Your task to perform on an android device: Open internet settings Image 0: 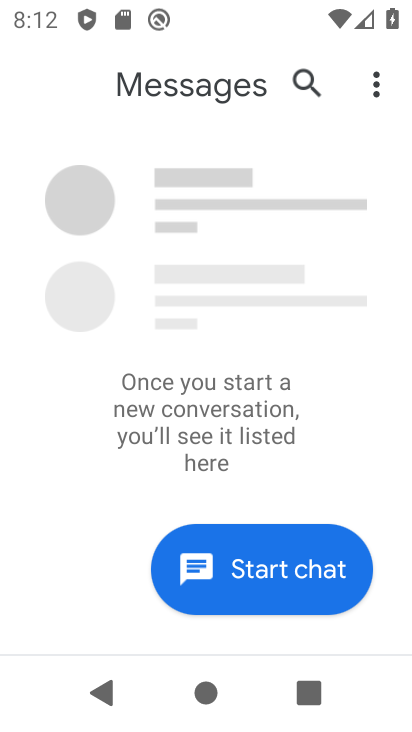
Step 0: press home button
Your task to perform on an android device: Open internet settings Image 1: 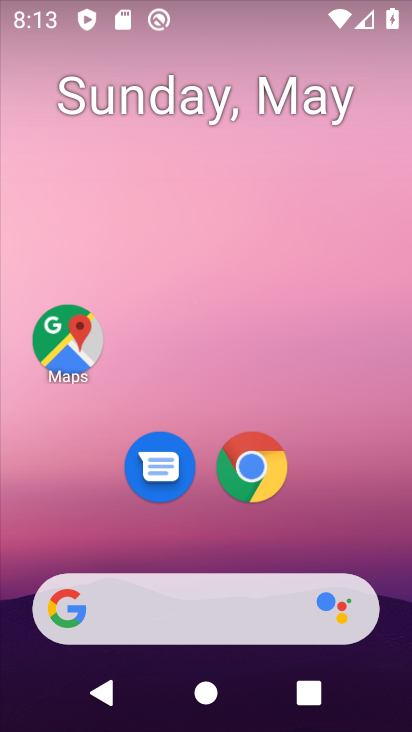
Step 1: drag from (395, 634) to (322, 99)
Your task to perform on an android device: Open internet settings Image 2: 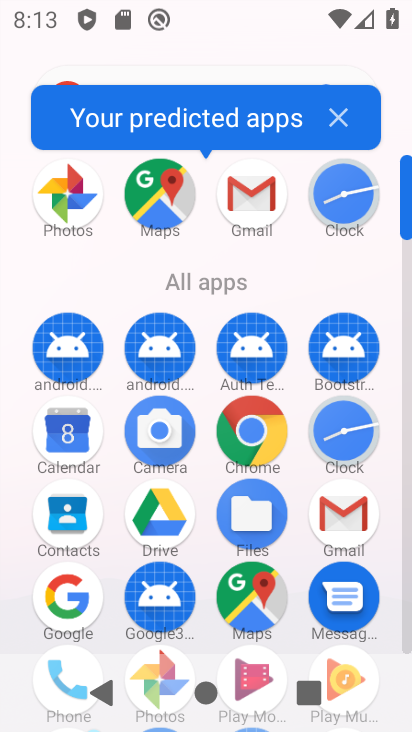
Step 2: click (406, 635)
Your task to perform on an android device: Open internet settings Image 3: 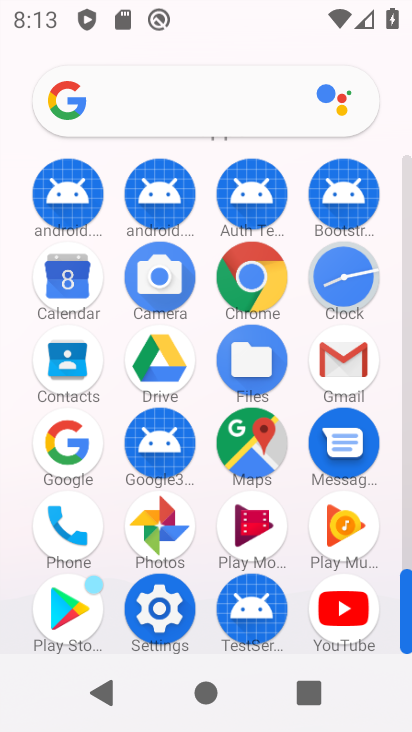
Step 3: click (157, 609)
Your task to perform on an android device: Open internet settings Image 4: 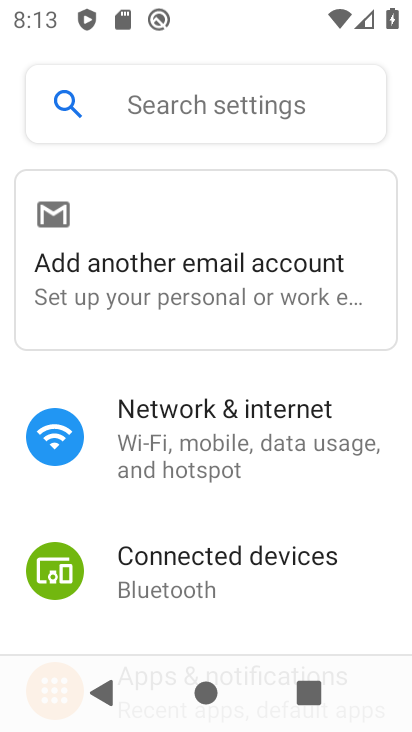
Step 4: click (174, 423)
Your task to perform on an android device: Open internet settings Image 5: 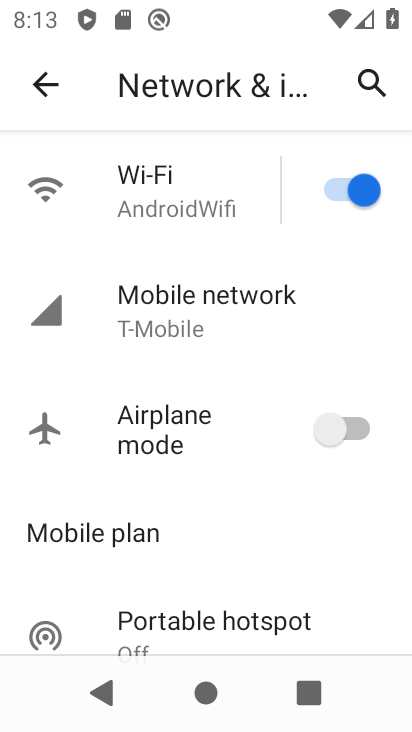
Step 5: click (161, 309)
Your task to perform on an android device: Open internet settings Image 6: 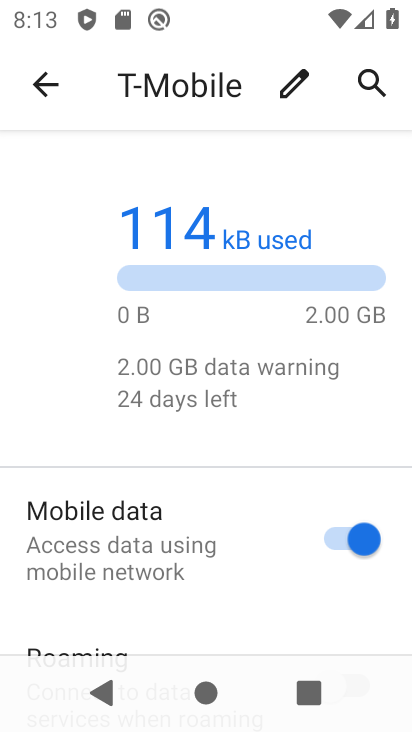
Step 6: drag from (250, 453) to (242, 401)
Your task to perform on an android device: Open internet settings Image 7: 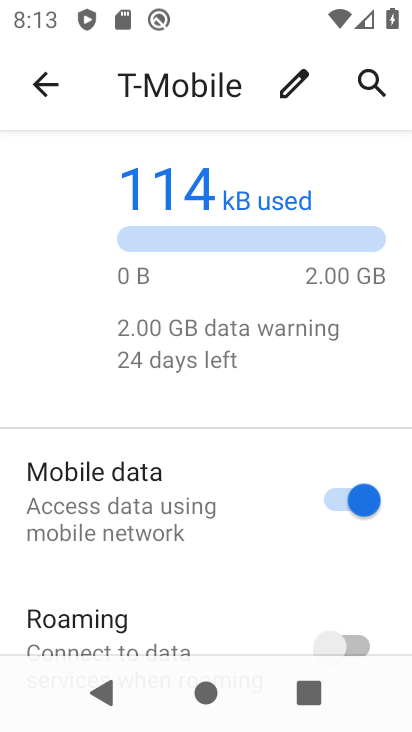
Step 7: drag from (236, 593) to (217, 289)
Your task to perform on an android device: Open internet settings Image 8: 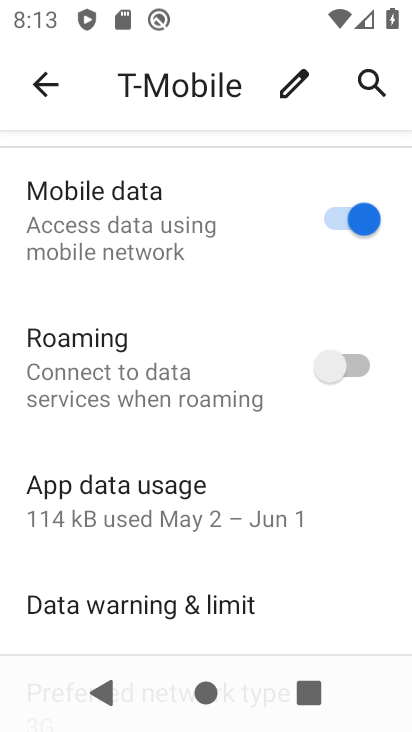
Step 8: drag from (223, 478) to (204, 340)
Your task to perform on an android device: Open internet settings Image 9: 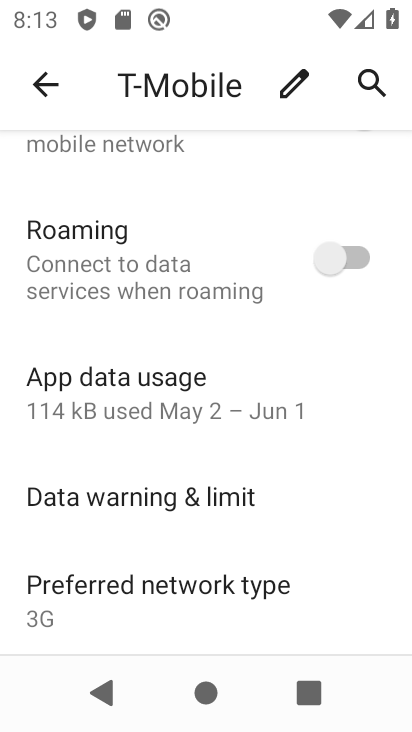
Step 9: drag from (175, 542) to (169, 377)
Your task to perform on an android device: Open internet settings Image 10: 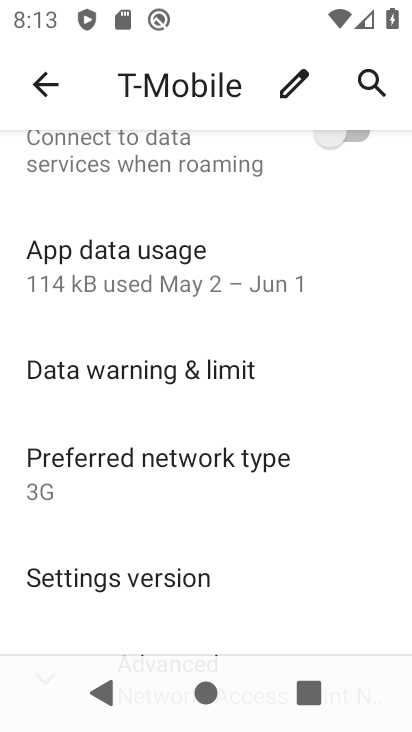
Step 10: drag from (204, 564) to (219, 141)
Your task to perform on an android device: Open internet settings Image 11: 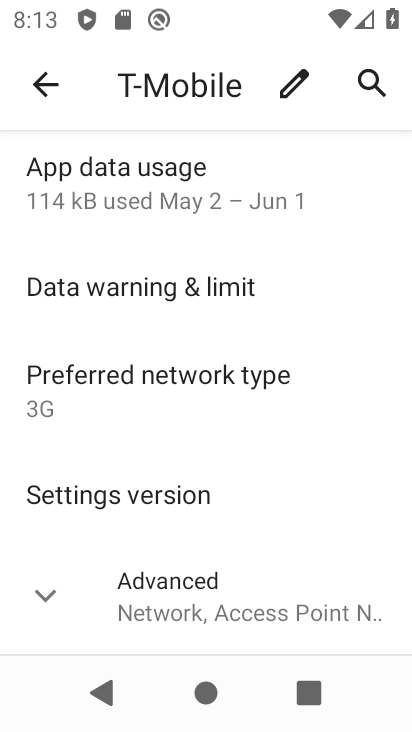
Step 11: click (49, 596)
Your task to perform on an android device: Open internet settings Image 12: 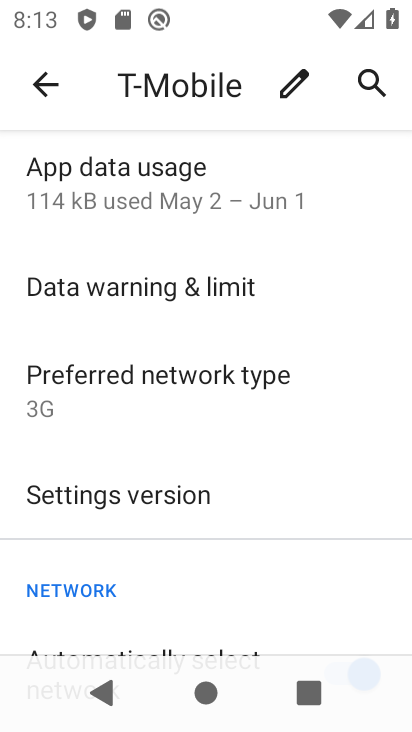
Step 12: task complete